Your task to perform on an android device: What's the weather? Image 0: 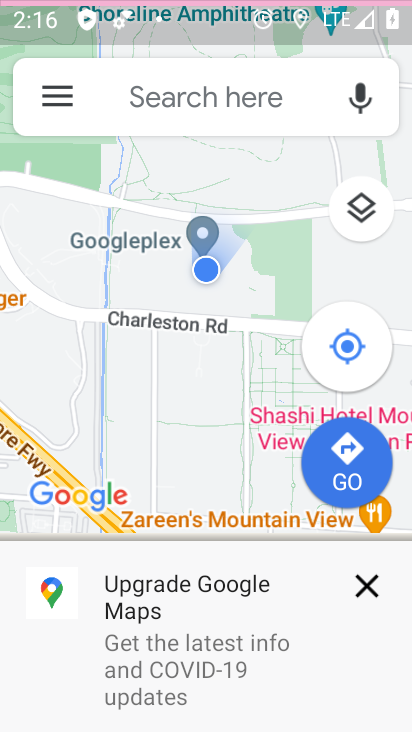
Step 0: press back button
Your task to perform on an android device: What's the weather? Image 1: 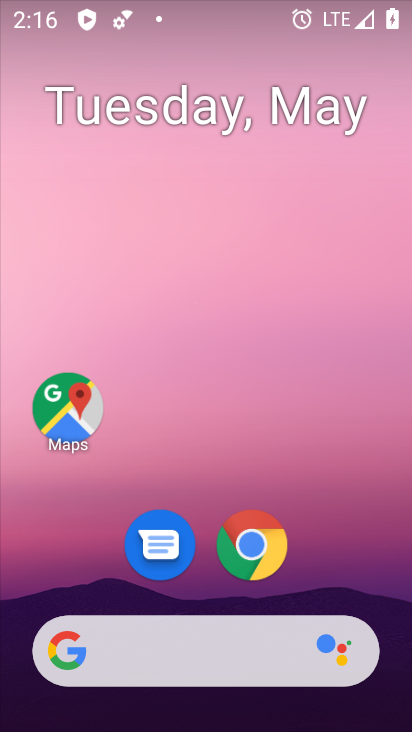
Step 1: drag from (325, 552) to (204, 20)
Your task to perform on an android device: What's the weather? Image 2: 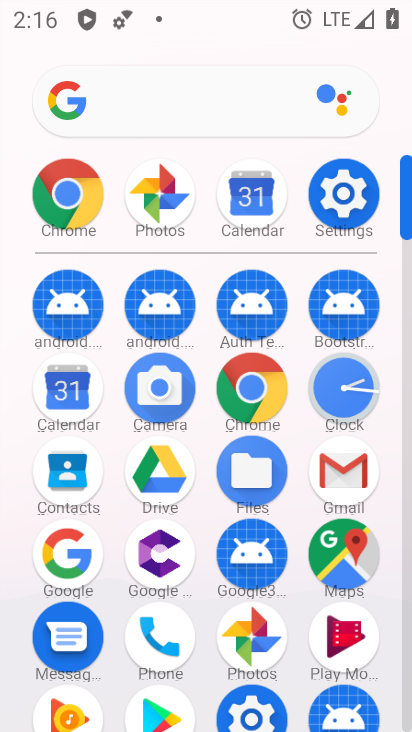
Step 2: click (62, 188)
Your task to perform on an android device: What's the weather? Image 3: 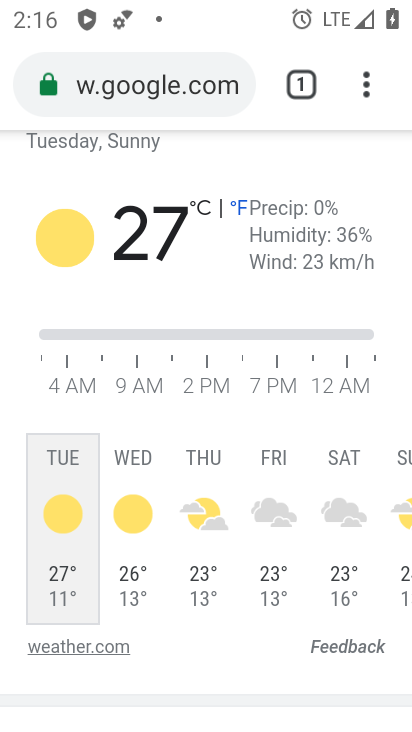
Step 3: click (173, 86)
Your task to perform on an android device: What's the weather? Image 4: 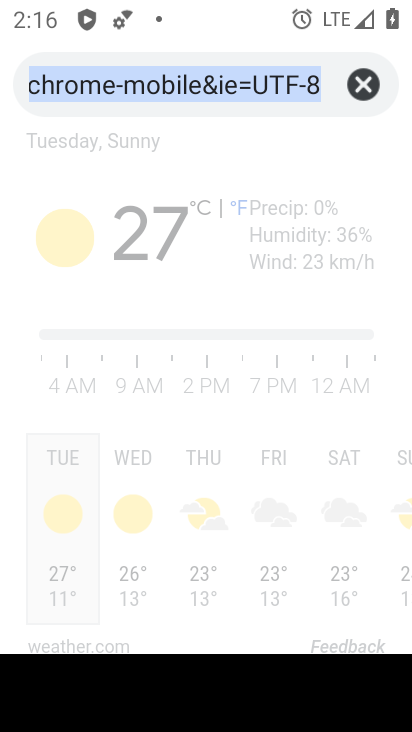
Step 4: click (373, 79)
Your task to perform on an android device: What's the weather? Image 5: 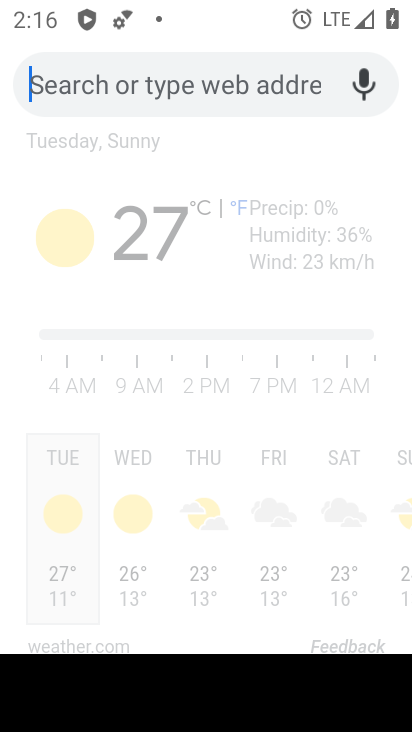
Step 5: type "What's the weather?"
Your task to perform on an android device: What's the weather? Image 6: 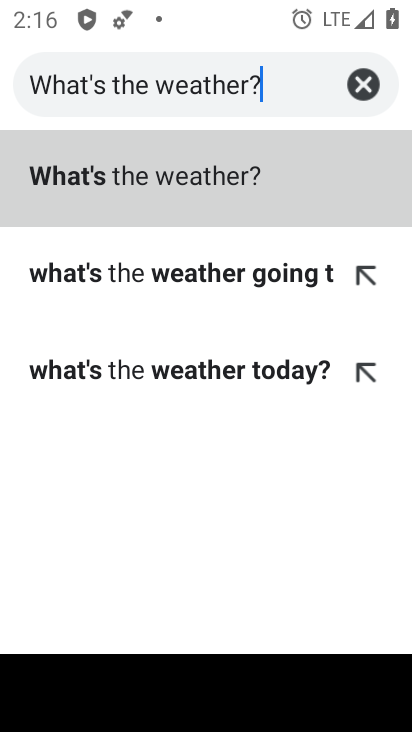
Step 6: click (159, 172)
Your task to perform on an android device: What's the weather? Image 7: 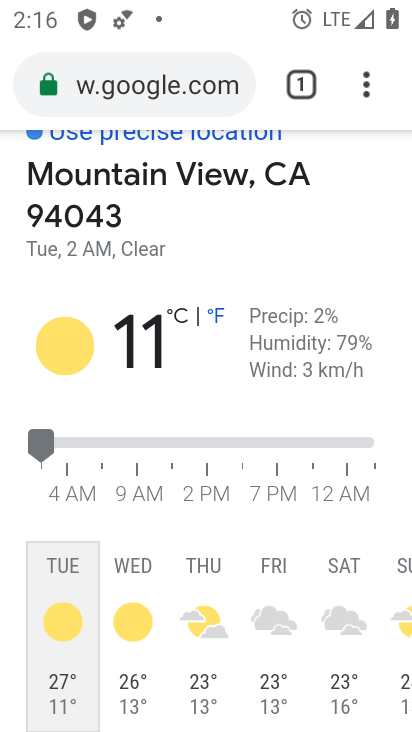
Step 7: task complete